Your task to perform on an android device: turn off smart reply in the gmail app Image 0: 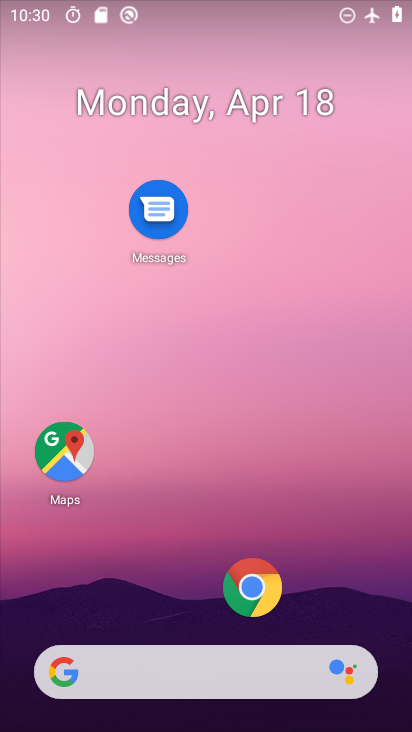
Step 0: drag from (175, 592) to (309, 5)
Your task to perform on an android device: turn off smart reply in the gmail app Image 1: 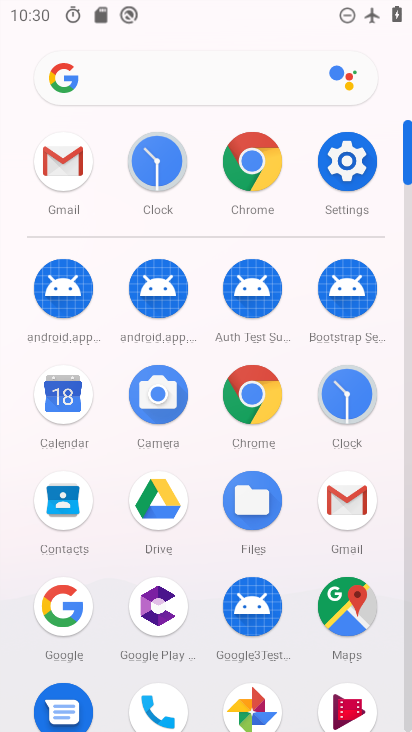
Step 1: click (357, 516)
Your task to perform on an android device: turn off smart reply in the gmail app Image 2: 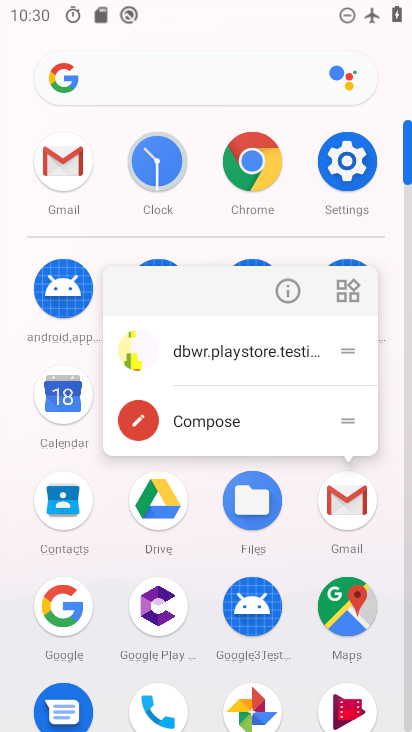
Step 2: click (344, 508)
Your task to perform on an android device: turn off smart reply in the gmail app Image 3: 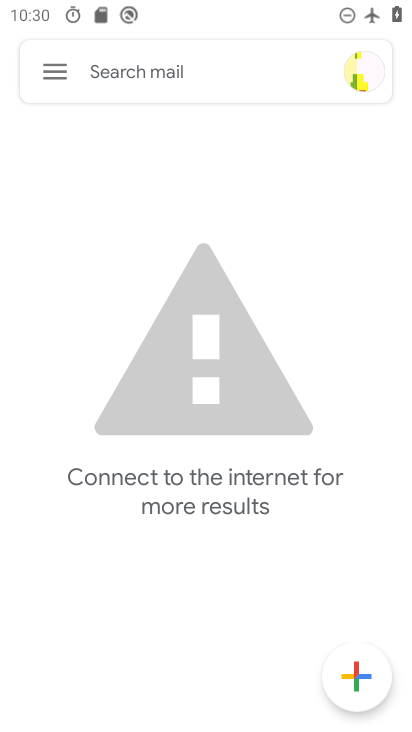
Step 3: click (47, 65)
Your task to perform on an android device: turn off smart reply in the gmail app Image 4: 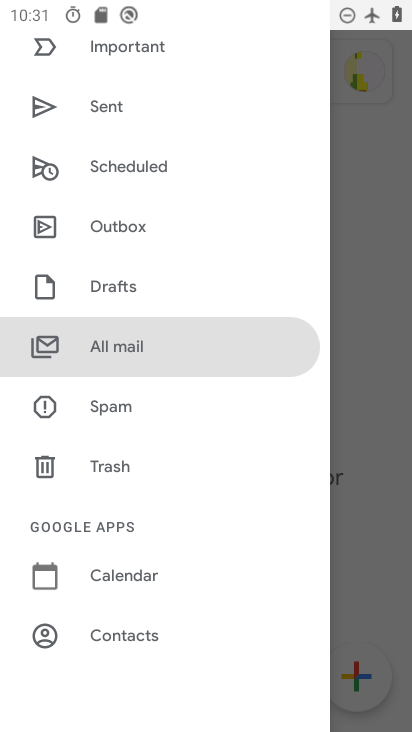
Step 4: drag from (133, 596) to (194, 70)
Your task to perform on an android device: turn off smart reply in the gmail app Image 5: 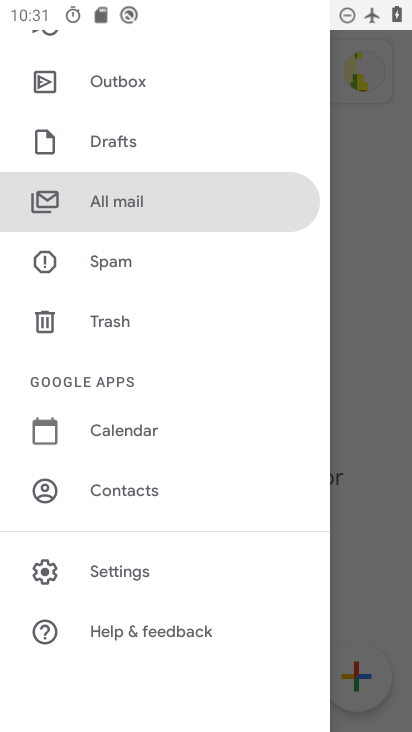
Step 5: click (122, 578)
Your task to perform on an android device: turn off smart reply in the gmail app Image 6: 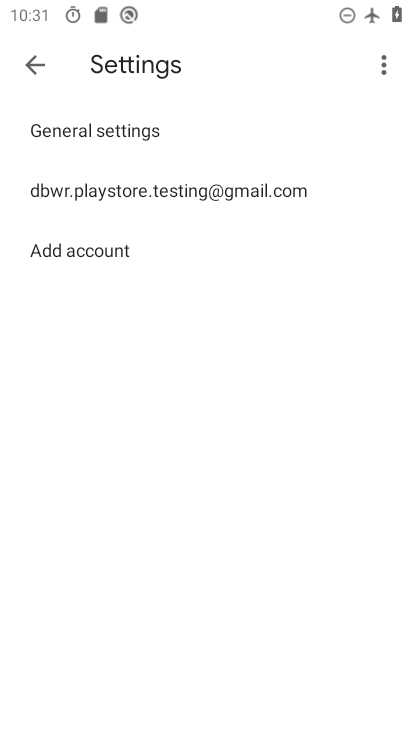
Step 6: click (118, 195)
Your task to perform on an android device: turn off smart reply in the gmail app Image 7: 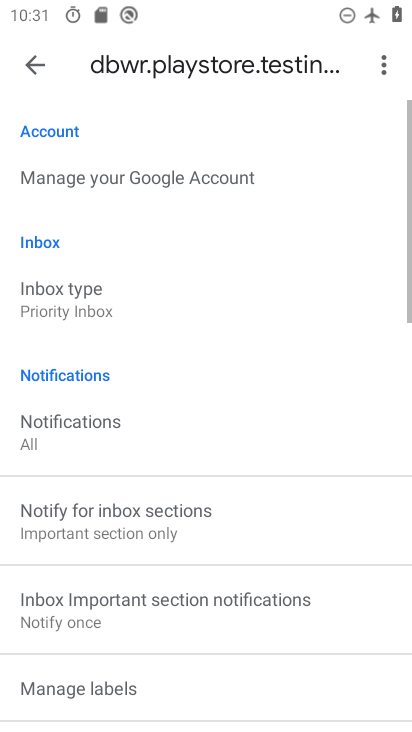
Step 7: drag from (220, 582) to (302, 75)
Your task to perform on an android device: turn off smart reply in the gmail app Image 8: 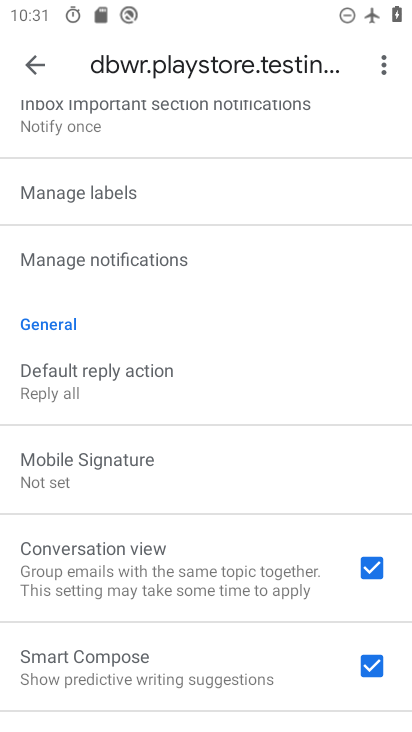
Step 8: drag from (192, 514) to (261, 129)
Your task to perform on an android device: turn off smart reply in the gmail app Image 9: 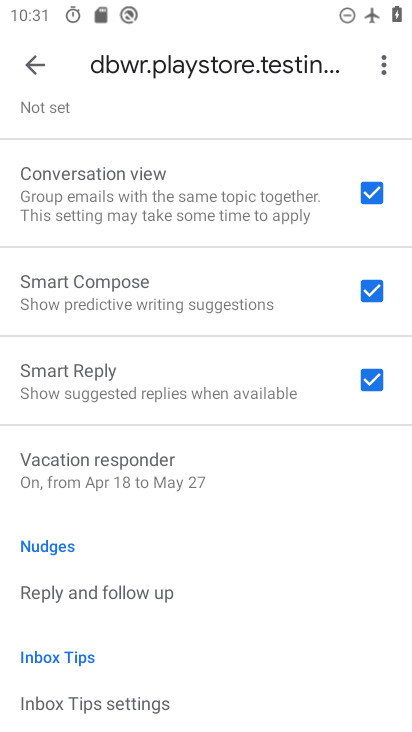
Step 9: click (315, 391)
Your task to perform on an android device: turn off smart reply in the gmail app Image 10: 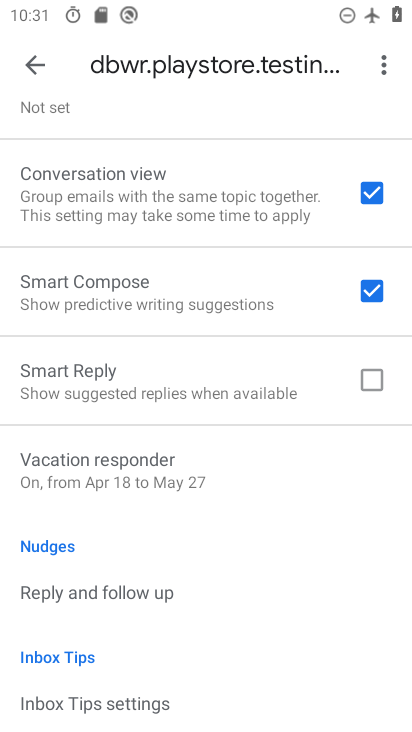
Step 10: task complete